Your task to perform on an android device: Open the Play Movies app and select the watchlist tab. Image 0: 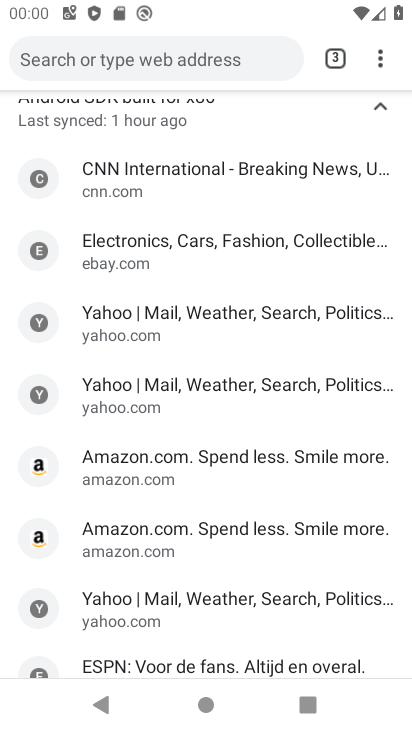
Step 0: press back button
Your task to perform on an android device: Open the Play Movies app and select the watchlist tab. Image 1: 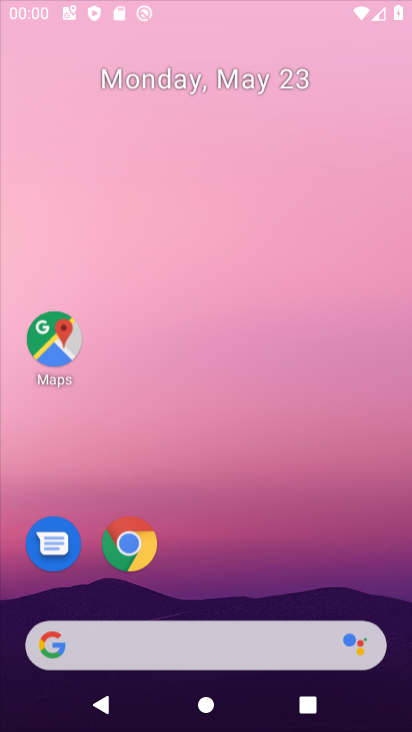
Step 1: press home button
Your task to perform on an android device: Open the Play Movies app and select the watchlist tab. Image 2: 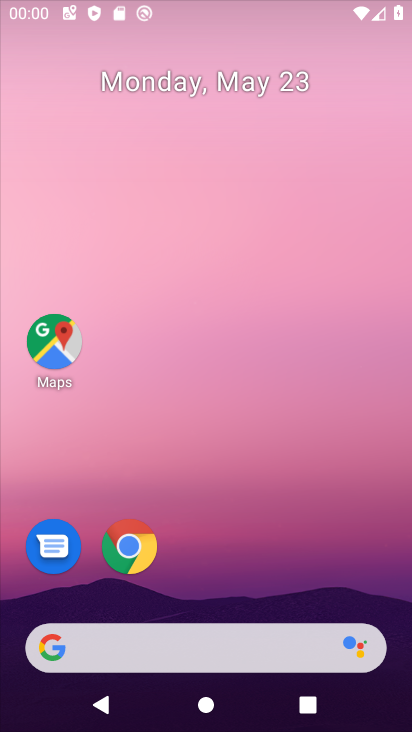
Step 2: drag from (181, 553) to (254, 176)
Your task to perform on an android device: Open the Play Movies app and select the watchlist tab. Image 3: 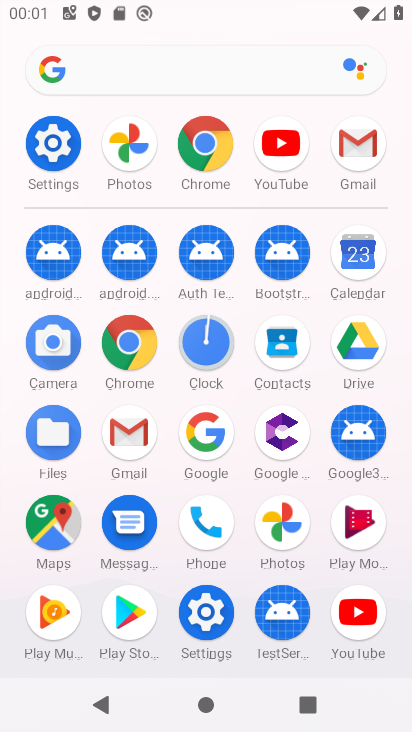
Step 3: drag from (244, 573) to (236, 211)
Your task to perform on an android device: Open the Play Movies app and select the watchlist tab. Image 4: 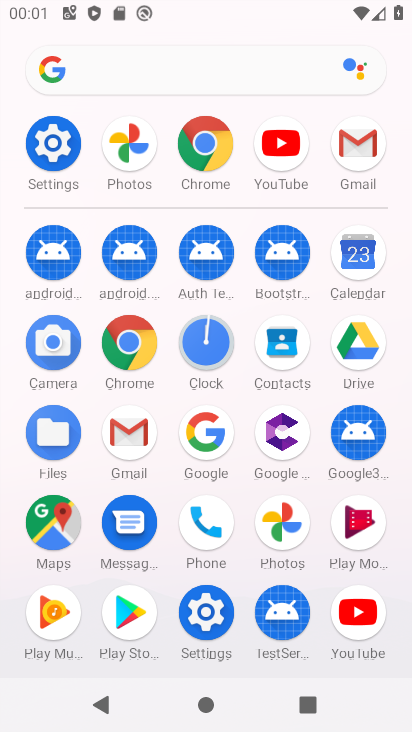
Step 4: drag from (245, 556) to (273, 245)
Your task to perform on an android device: Open the Play Movies app and select the watchlist tab. Image 5: 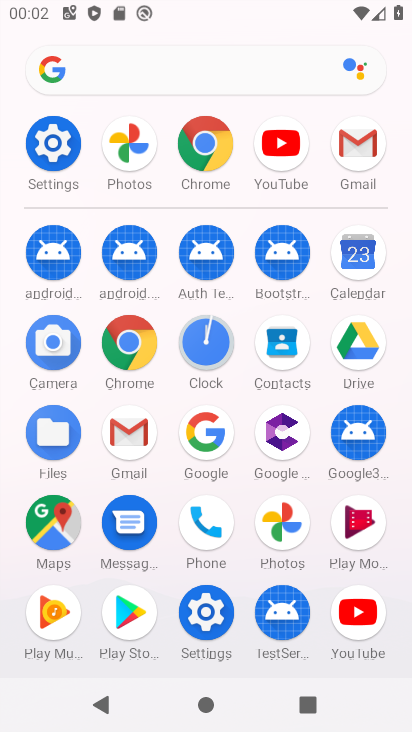
Step 5: click (355, 523)
Your task to perform on an android device: Open the Play Movies app and select the watchlist tab. Image 6: 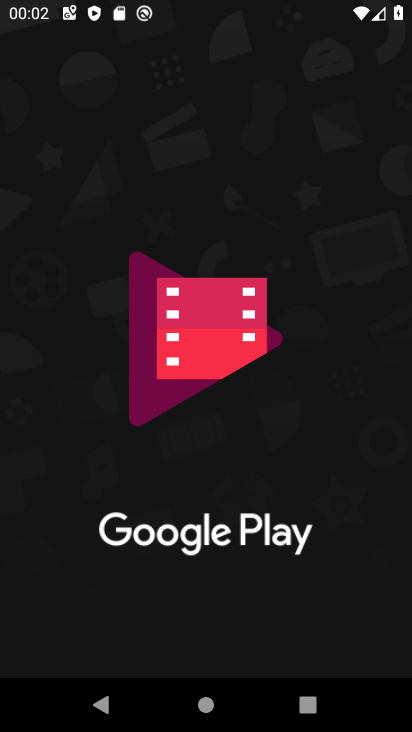
Step 6: drag from (286, 561) to (191, 514)
Your task to perform on an android device: Open the Play Movies app and select the watchlist tab. Image 7: 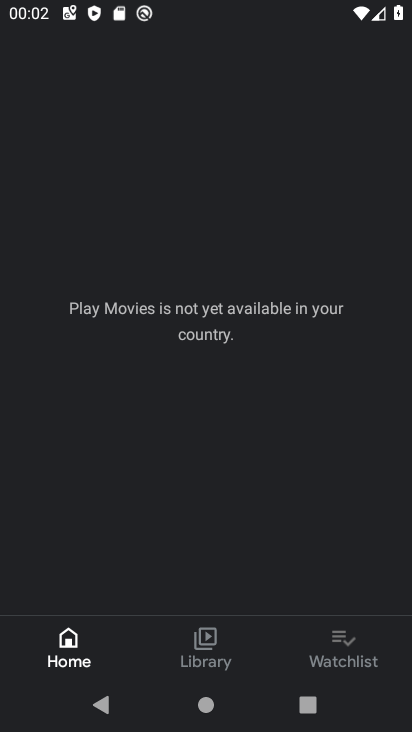
Step 7: click (180, 558)
Your task to perform on an android device: Open the Play Movies app and select the watchlist tab. Image 8: 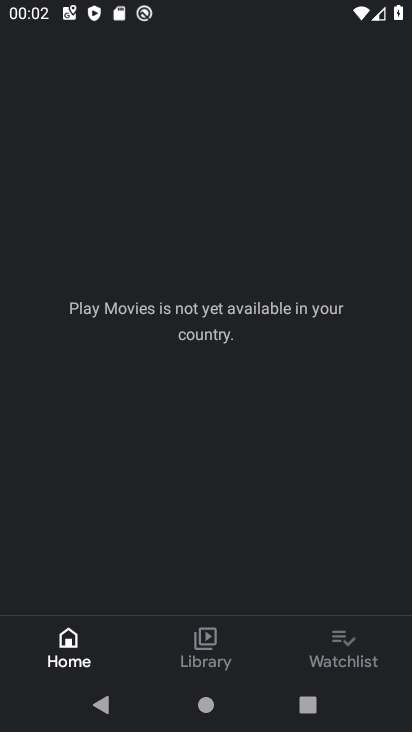
Step 8: click (317, 630)
Your task to perform on an android device: Open the Play Movies app and select the watchlist tab. Image 9: 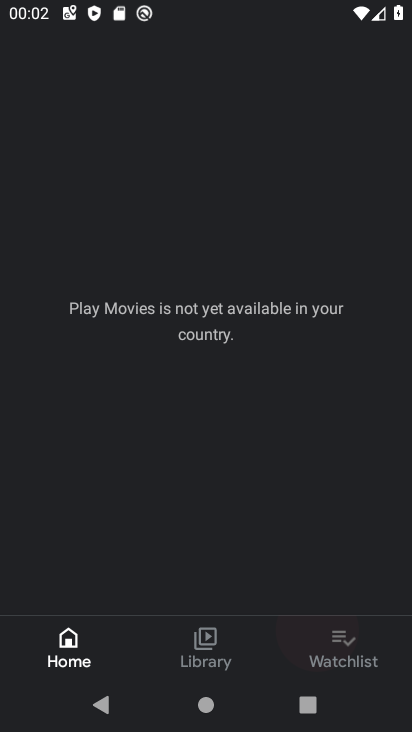
Step 9: click (354, 635)
Your task to perform on an android device: Open the Play Movies app and select the watchlist tab. Image 10: 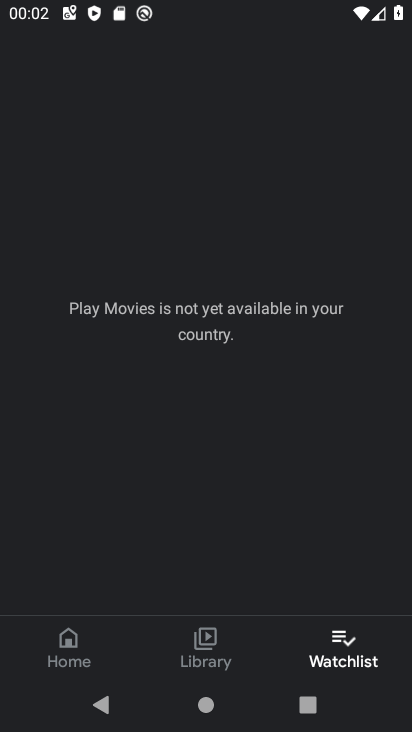
Step 10: drag from (141, 549) to (232, 212)
Your task to perform on an android device: Open the Play Movies app and select the watchlist tab. Image 11: 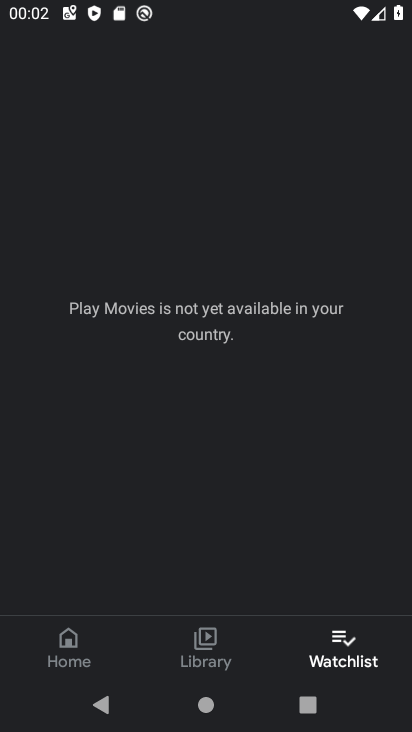
Step 11: click (54, 661)
Your task to perform on an android device: Open the Play Movies app and select the watchlist tab. Image 12: 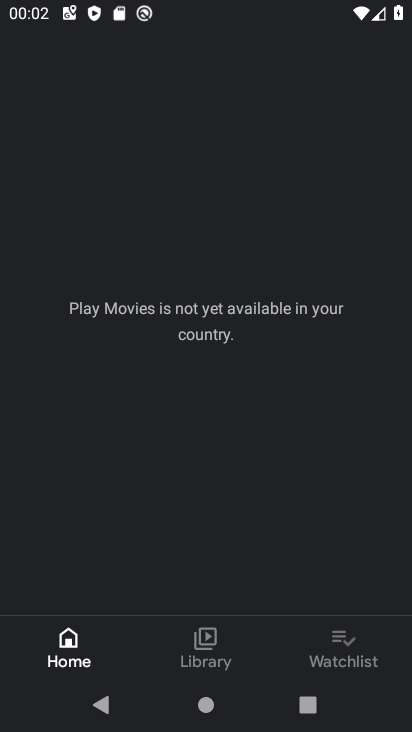
Step 12: click (353, 638)
Your task to perform on an android device: Open the Play Movies app and select the watchlist tab. Image 13: 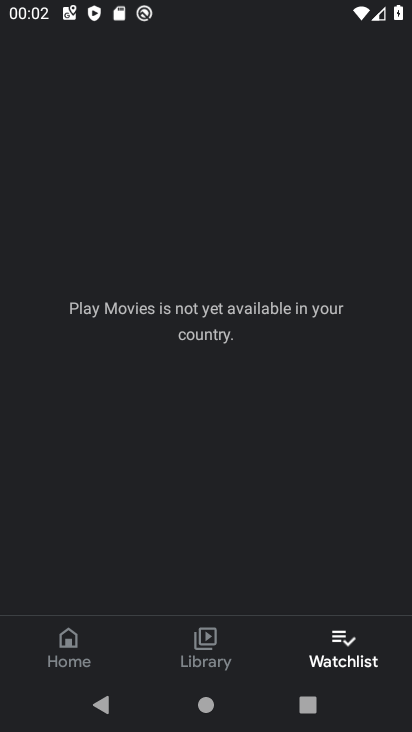
Step 13: drag from (338, 623) to (336, 249)
Your task to perform on an android device: Open the Play Movies app and select the watchlist tab. Image 14: 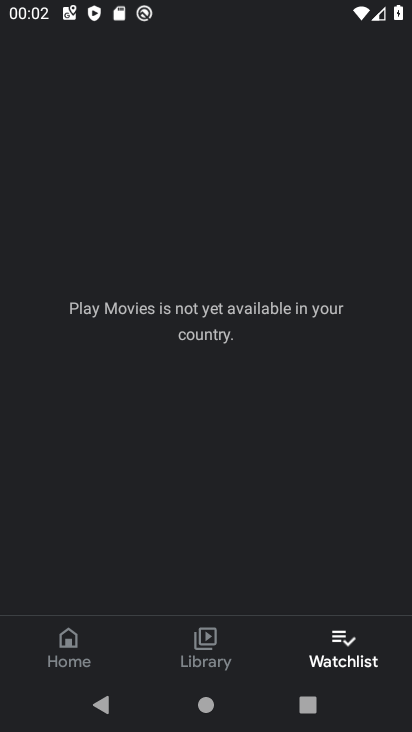
Step 14: drag from (8, 288) to (62, 566)
Your task to perform on an android device: Open the Play Movies app and select the watchlist tab. Image 15: 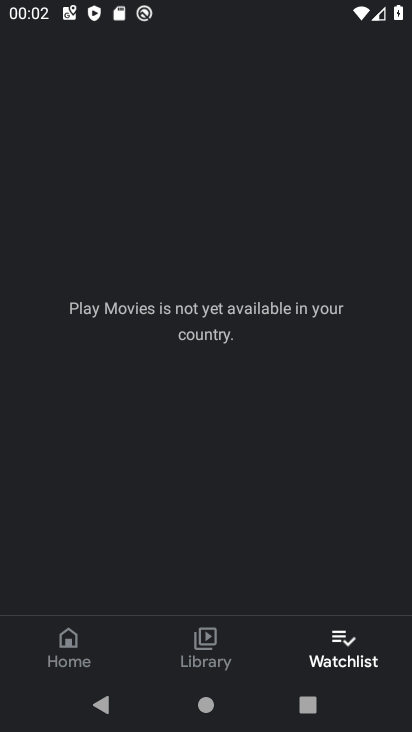
Step 15: drag from (36, 242) to (410, 135)
Your task to perform on an android device: Open the Play Movies app and select the watchlist tab. Image 16: 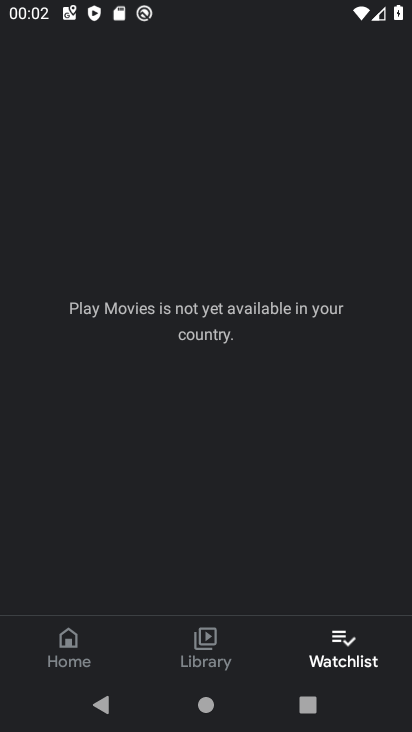
Step 16: click (353, 644)
Your task to perform on an android device: Open the Play Movies app and select the watchlist tab. Image 17: 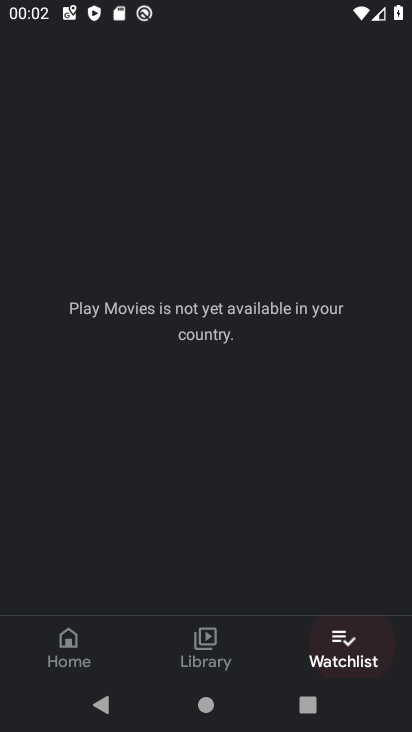
Step 17: click (353, 644)
Your task to perform on an android device: Open the Play Movies app and select the watchlist tab. Image 18: 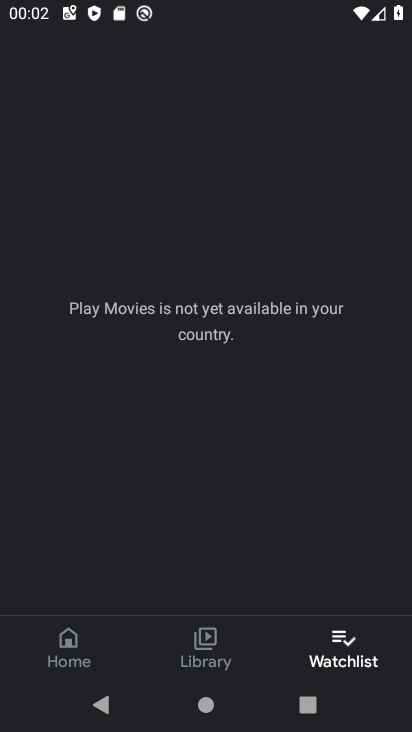
Step 18: click (346, 640)
Your task to perform on an android device: Open the Play Movies app and select the watchlist tab. Image 19: 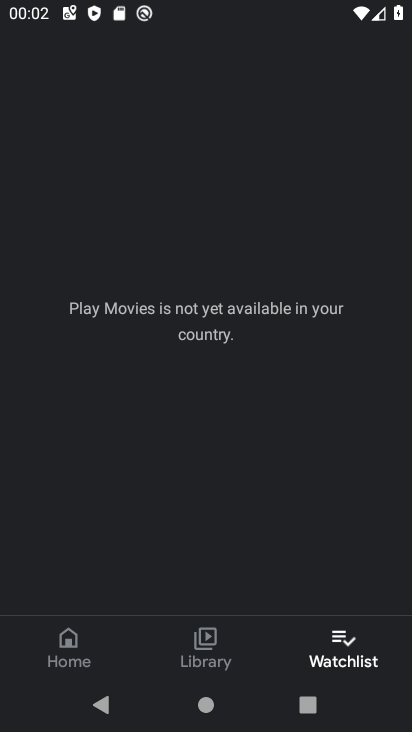
Step 19: click (346, 640)
Your task to perform on an android device: Open the Play Movies app and select the watchlist tab. Image 20: 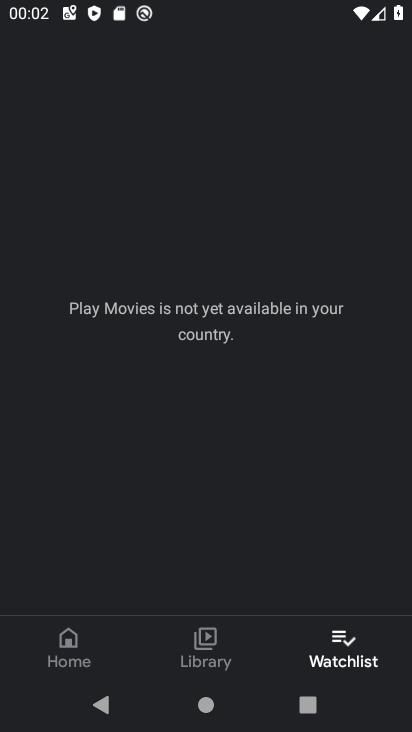
Step 20: click (362, 634)
Your task to perform on an android device: Open the Play Movies app and select the watchlist tab. Image 21: 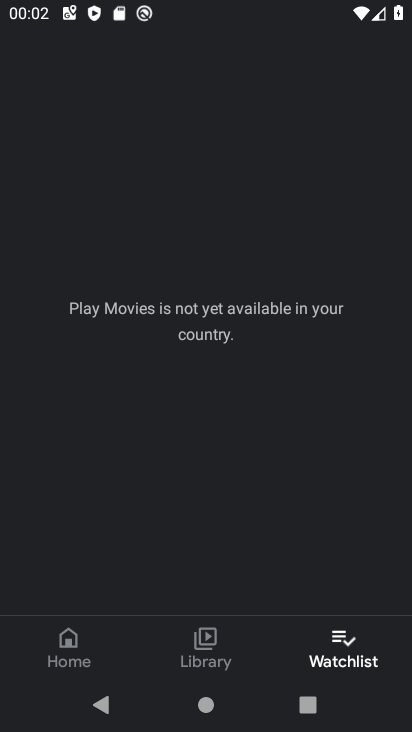
Step 21: click (365, 631)
Your task to perform on an android device: Open the Play Movies app and select the watchlist tab. Image 22: 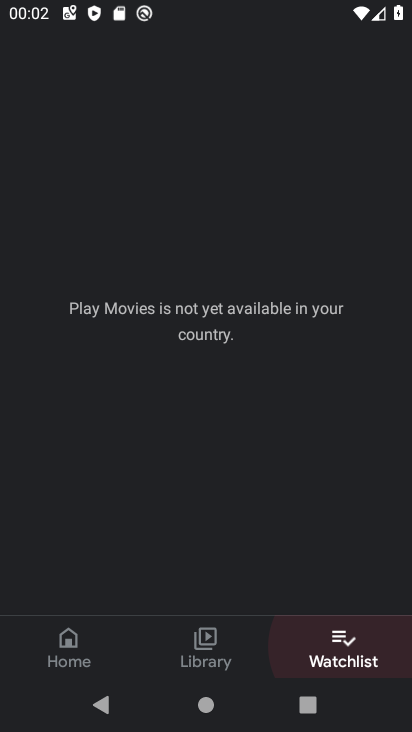
Step 22: click (365, 631)
Your task to perform on an android device: Open the Play Movies app and select the watchlist tab. Image 23: 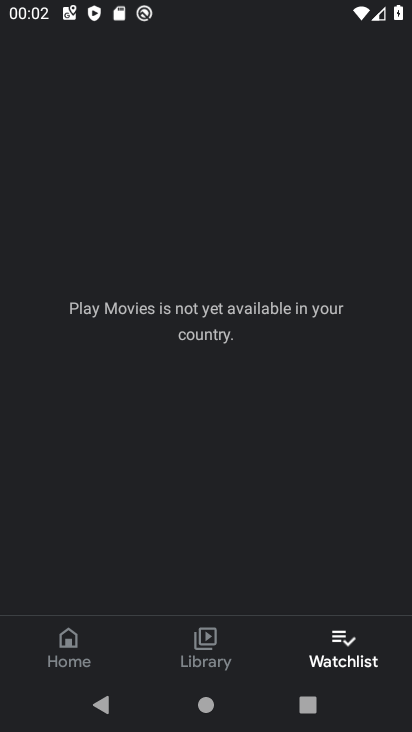
Step 23: click (348, 641)
Your task to perform on an android device: Open the Play Movies app and select the watchlist tab. Image 24: 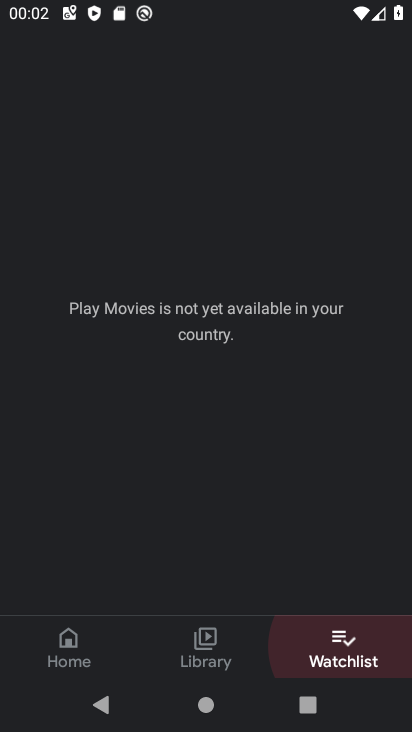
Step 24: click (348, 641)
Your task to perform on an android device: Open the Play Movies app and select the watchlist tab. Image 25: 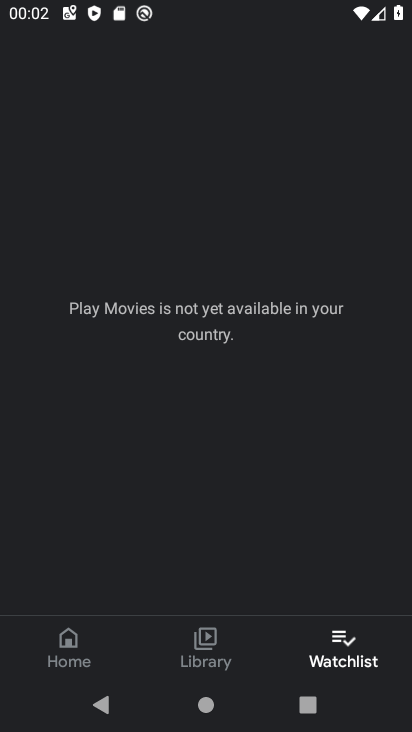
Step 25: task complete